Your task to perform on an android device: all mails in gmail Image 0: 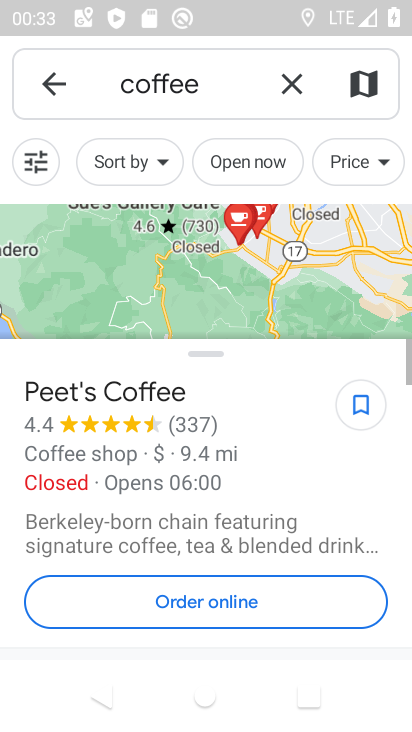
Step 0: press home button
Your task to perform on an android device: all mails in gmail Image 1: 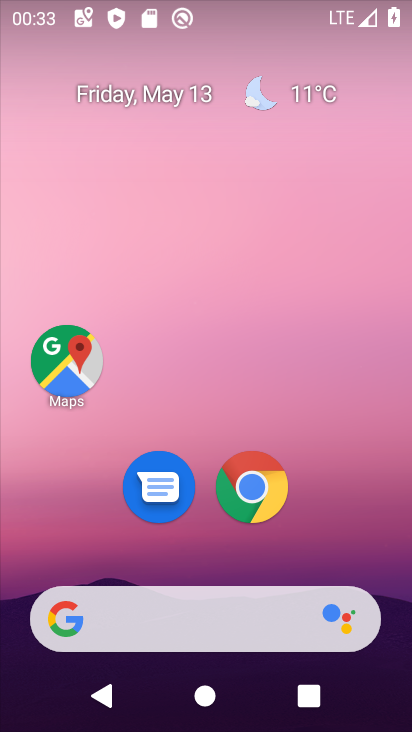
Step 1: drag from (183, 548) to (214, 181)
Your task to perform on an android device: all mails in gmail Image 2: 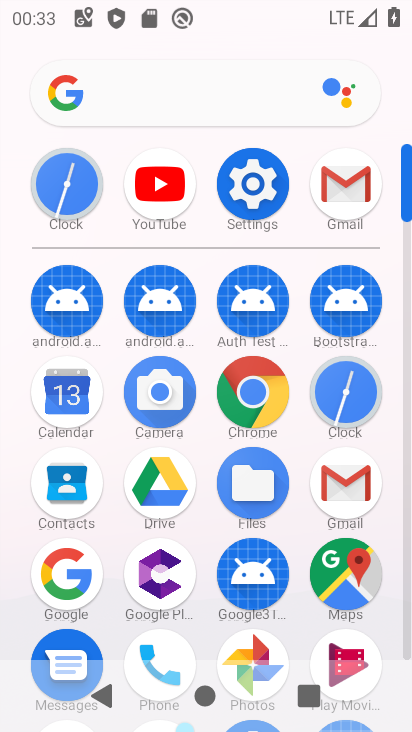
Step 2: click (333, 196)
Your task to perform on an android device: all mails in gmail Image 3: 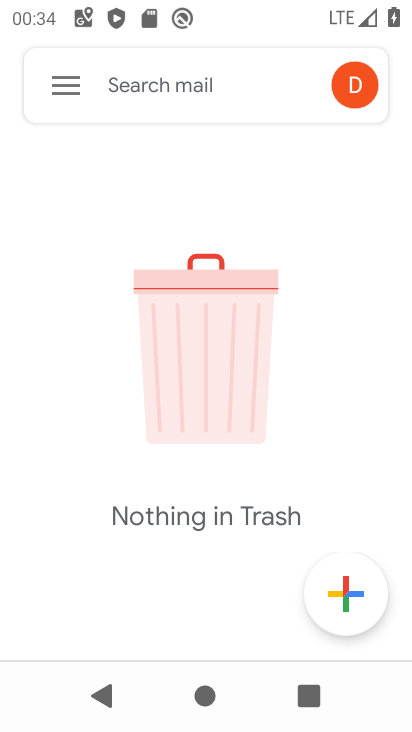
Step 3: click (70, 75)
Your task to perform on an android device: all mails in gmail Image 4: 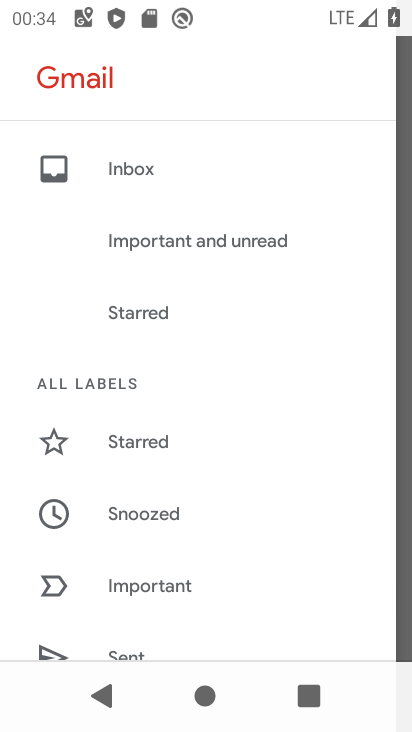
Step 4: drag from (195, 494) to (260, 153)
Your task to perform on an android device: all mails in gmail Image 5: 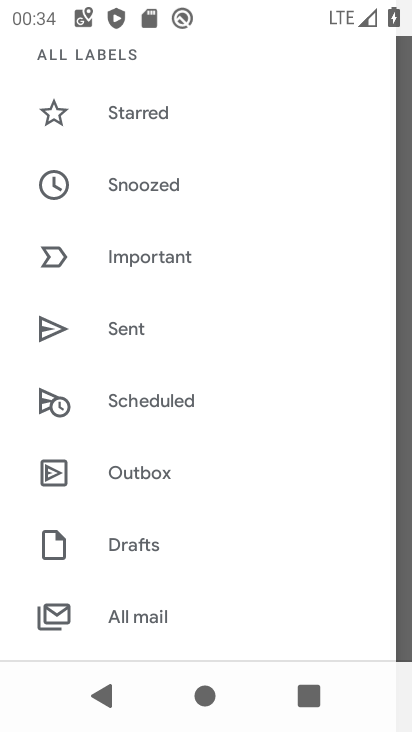
Step 5: click (200, 609)
Your task to perform on an android device: all mails in gmail Image 6: 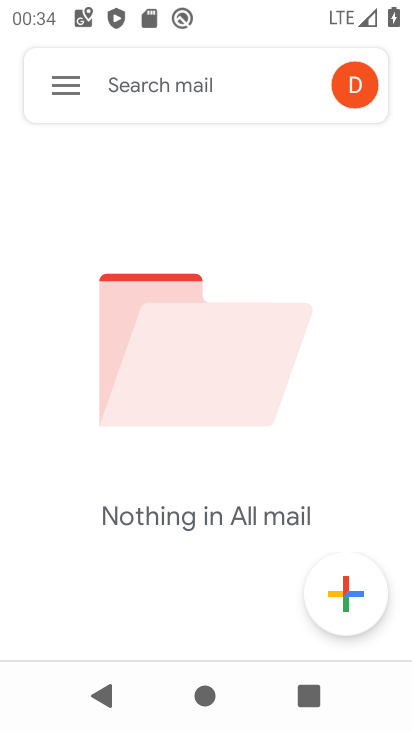
Step 6: task complete